Your task to perform on an android device: open app "The Home Depot" (install if not already installed) Image 0: 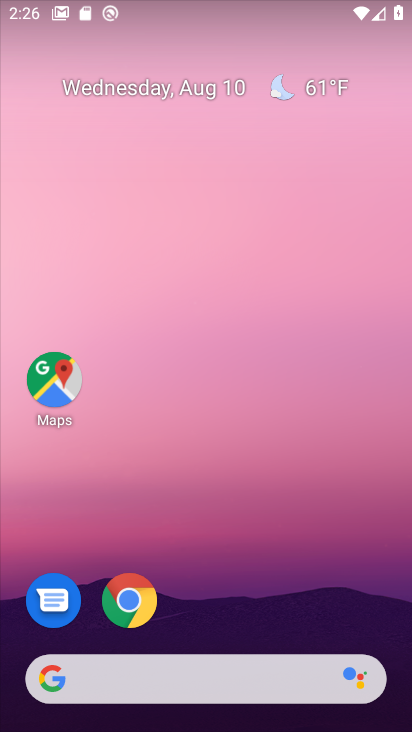
Step 0: drag from (187, 582) to (227, 157)
Your task to perform on an android device: open app "The Home Depot" (install if not already installed) Image 1: 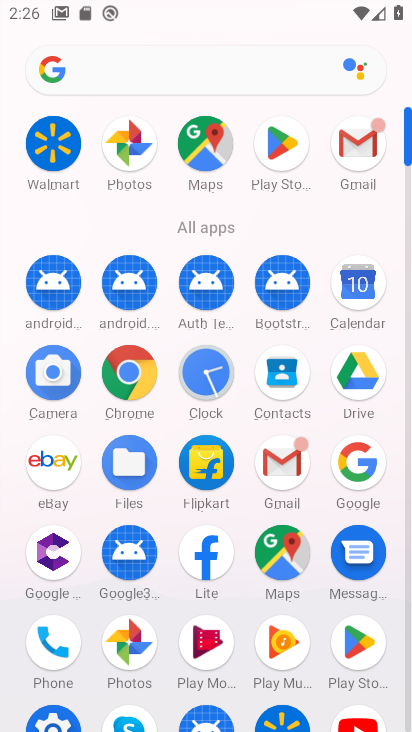
Step 1: click (287, 141)
Your task to perform on an android device: open app "The Home Depot" (install if not already installed) Image 2: 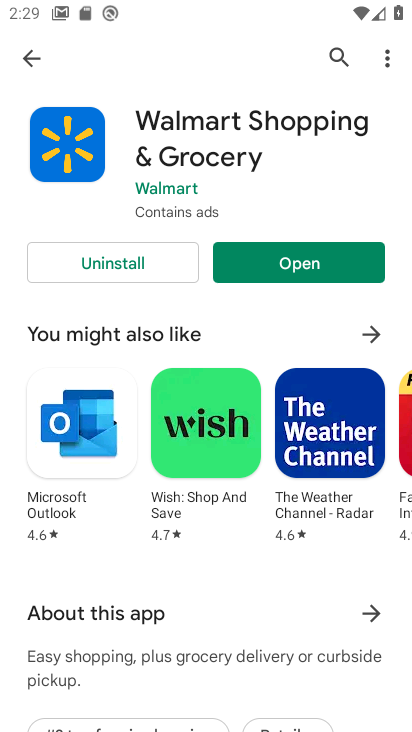
Step 2: click (339, 52)
Your task to perform on an android device: open app "The Home Depot" (install if not already installed) Image 3: 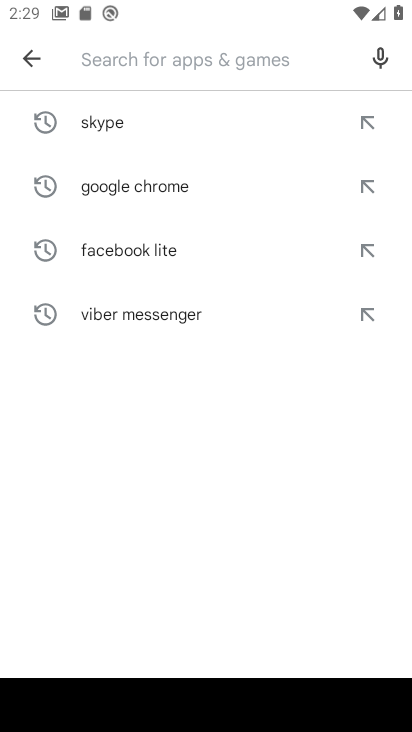
Step 3: click (118, 51)
Your task to perform on an android device: open app "The Home Depot" (install if not already installed) Image 4: 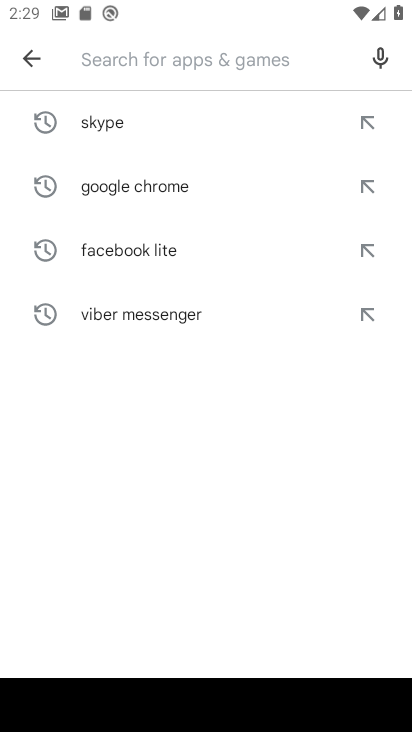
Step 4: type "The Home Depot"
Your task to perform on an android device: open app "The Home Depot" (install if not already installed) Image 5: 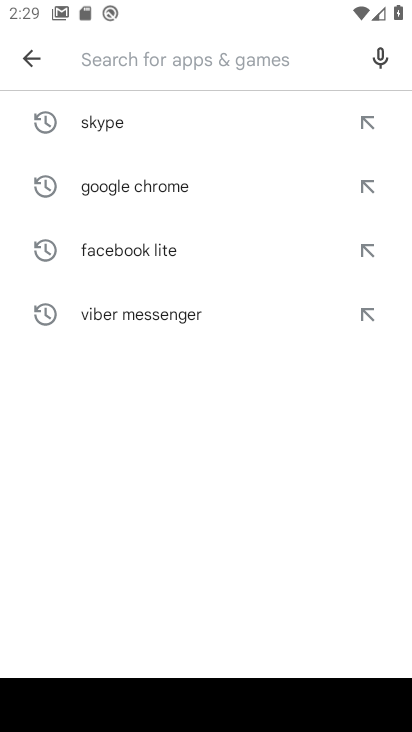
Step 5: click (281, 494)
Your task to perform on an android device: open app "The Home Depot" (install if not already installed) Image 6: 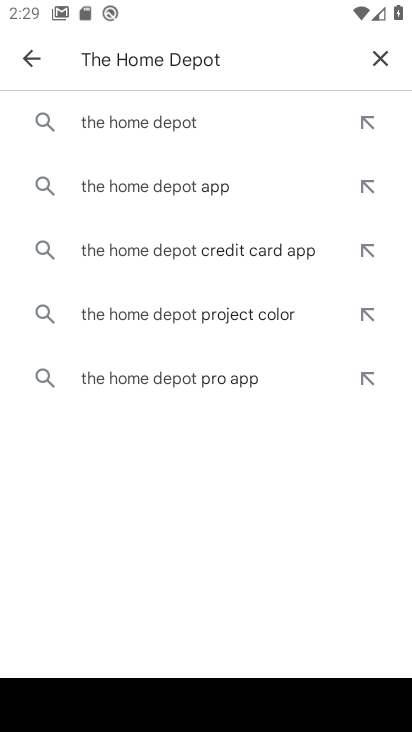
Step 6: click (158, 111)
Your task to perform on an android device: open app "The Home Depot" (install if not already installed) Image 7: 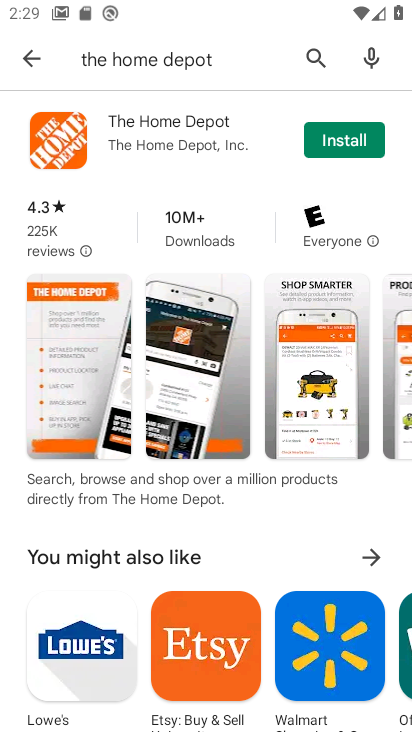
Step 7: click (352, 134)
Your task to perform on an android device: open app "The Home Depot" (install if not already installed) Image 8: 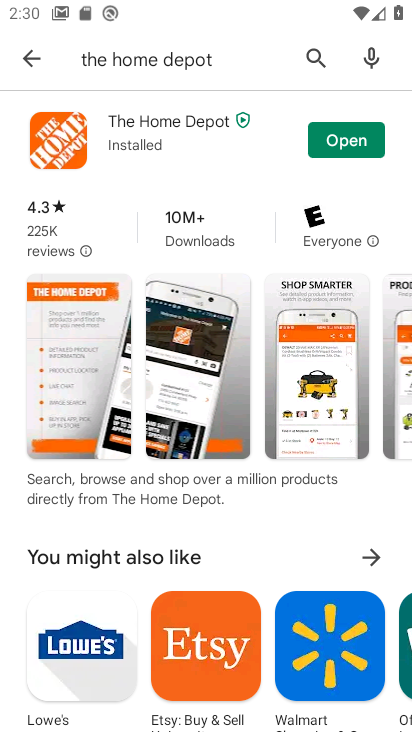
Step 8: click (346, 135)
Your task to perform on an android device: open app "The Home Depot" (install if not already installed) Image 9: 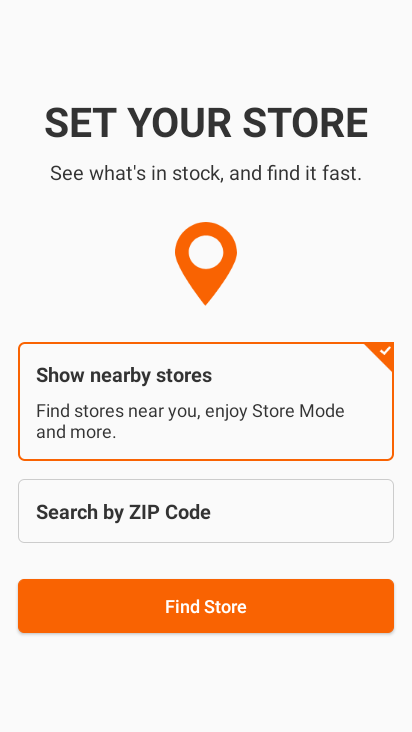
Step 9: task complete